Your task to perform on an android device: turn on improve location accuracy Image 0: 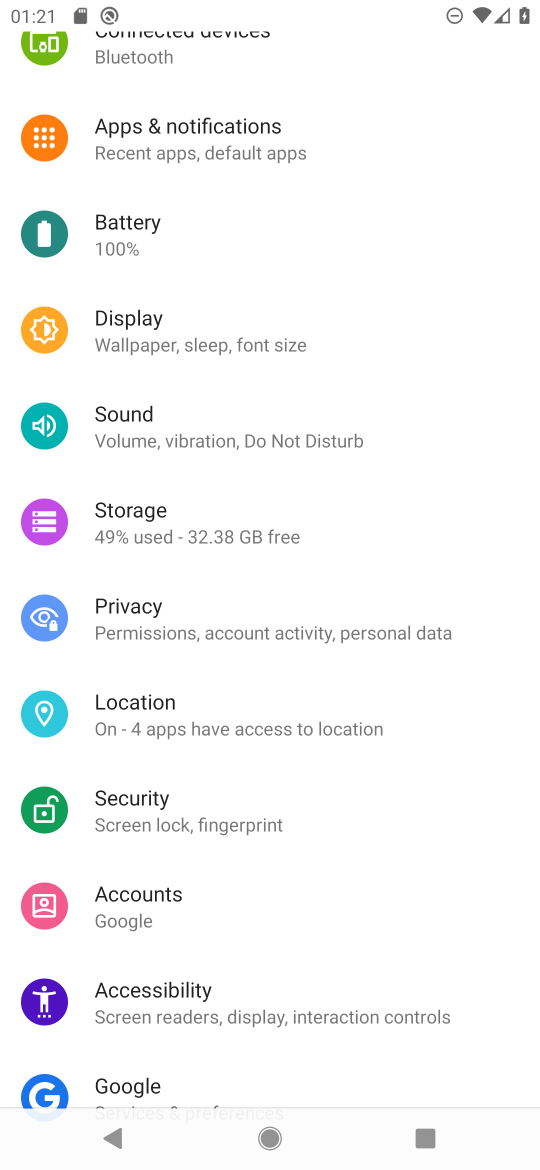
Step 0: click (207, 720)
Your task to perform on an android device: turn on improve location accuracy Image 1: 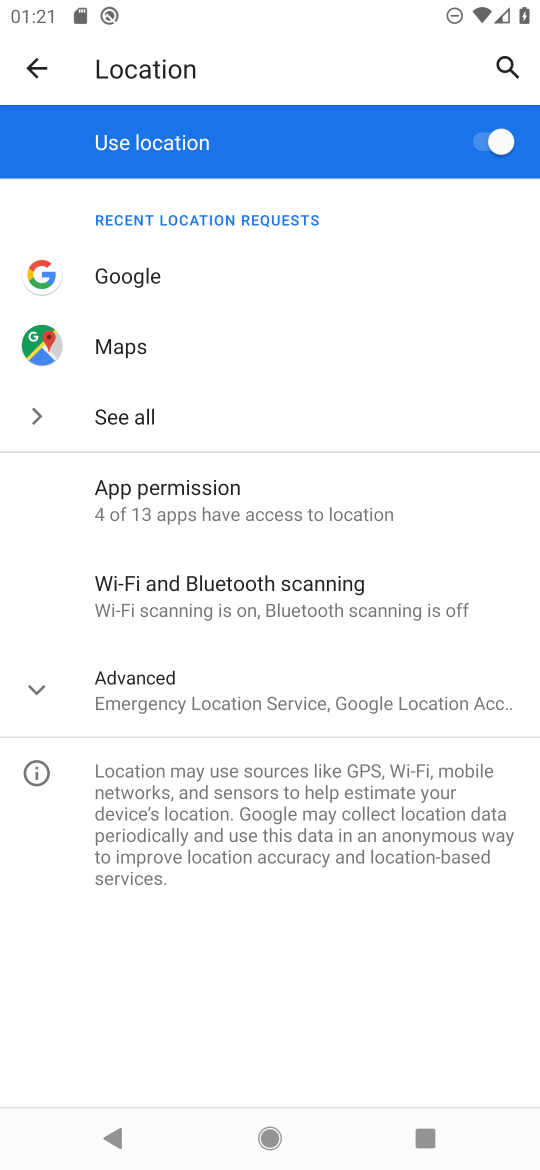
Step 1: click (207, 720)
Your task to perform on an android device: turn on improve location accuracy Image 2: 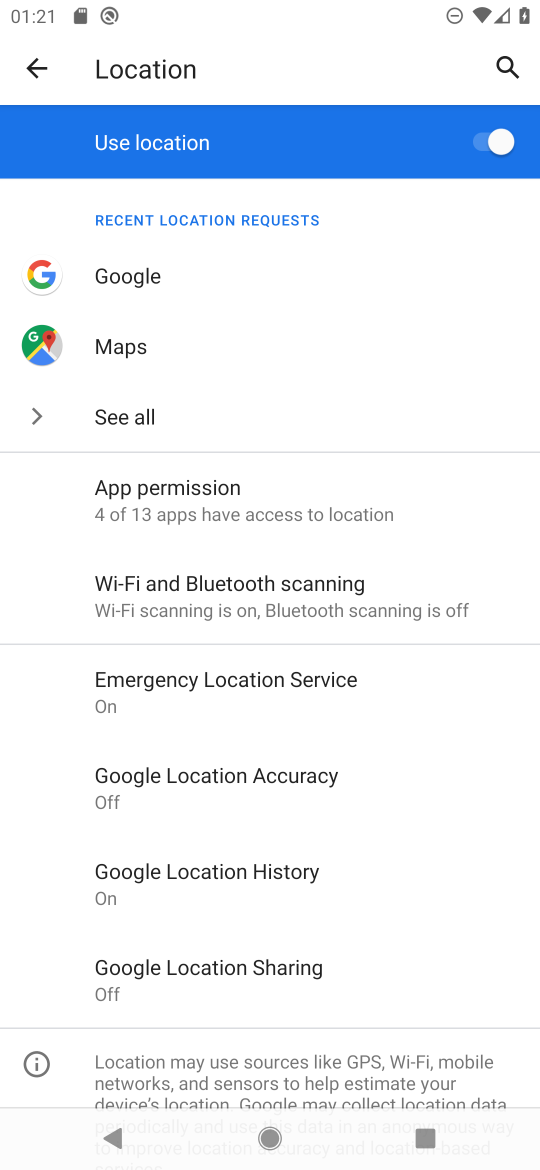
Step 2: click (298, 793)
Your task to perform on an android device: turn on improve location accuracy Image 3: 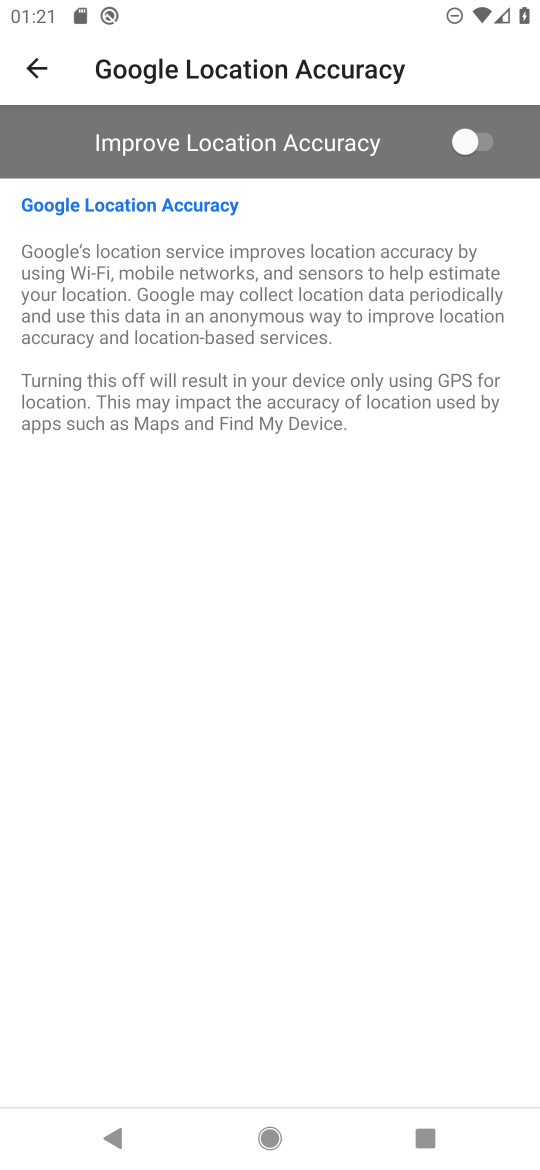
Step 3: click (477, 141)
Your task to perform on an android device: turn on improve location accuracy Image 4: 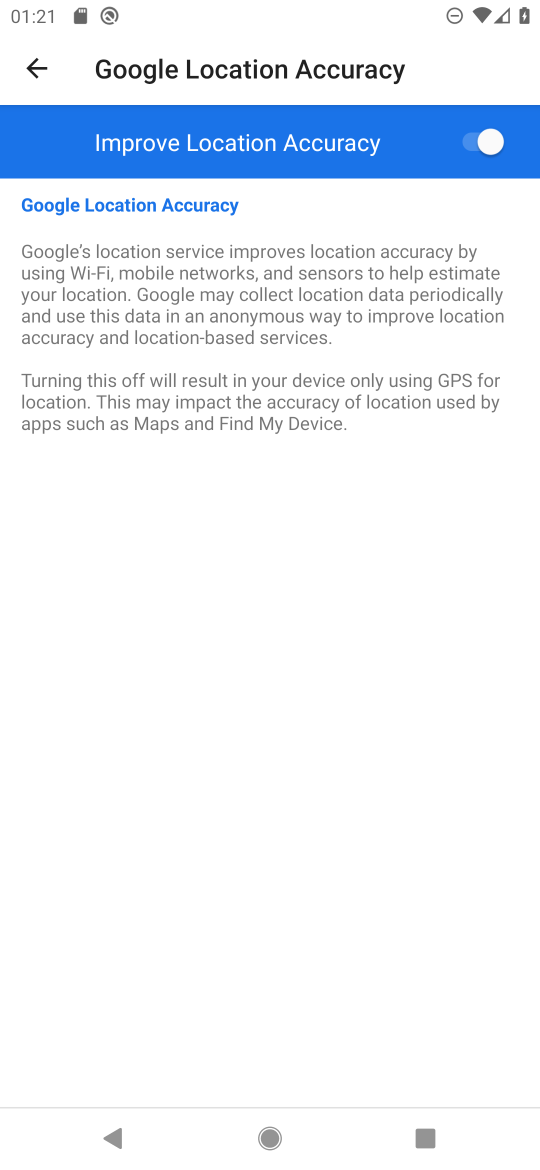
Step 4: task complete